Your task to perform on an android device: check storage Image 0: 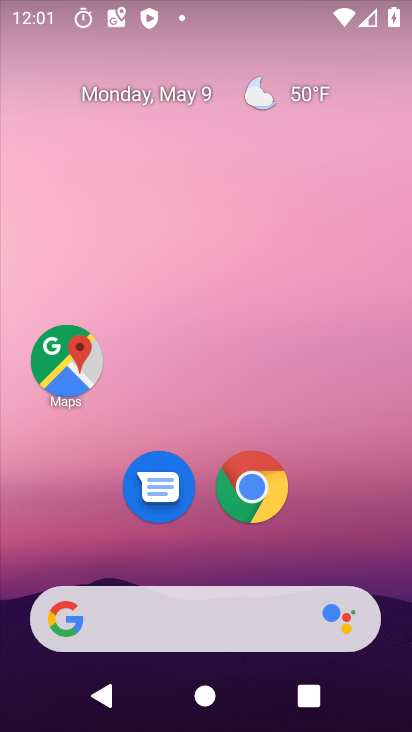
Step 0: drag from (340, 505) to (310, 58)
Your task to perform on an android device: check storage Image 1: 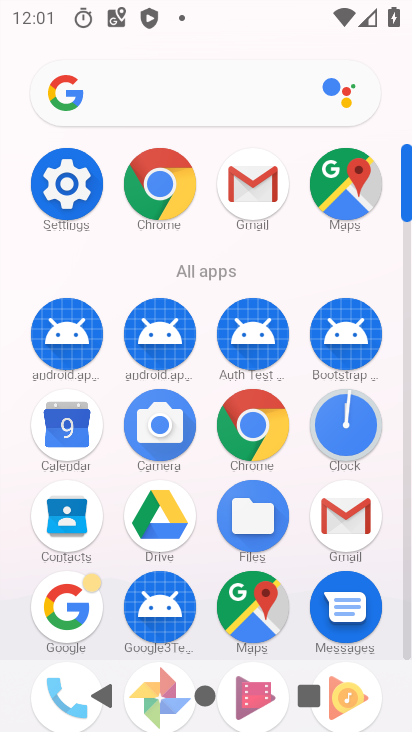
Step 1: click (59, 185)
Your task to perform on an android device: check storage Image 2: 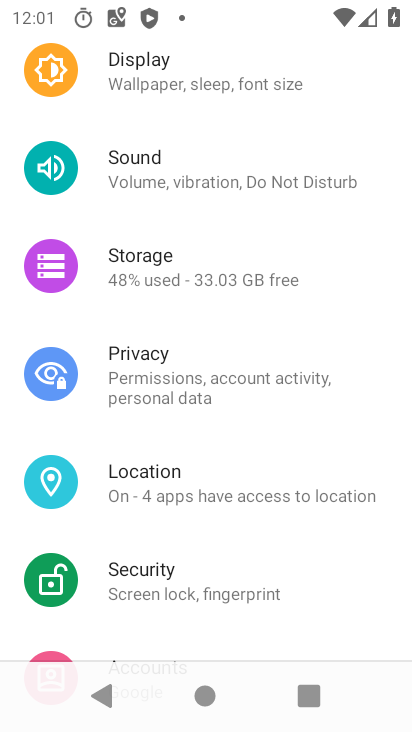
Step 2: click (196, 290)
Your task to perform on an android device: check storage Image 3: 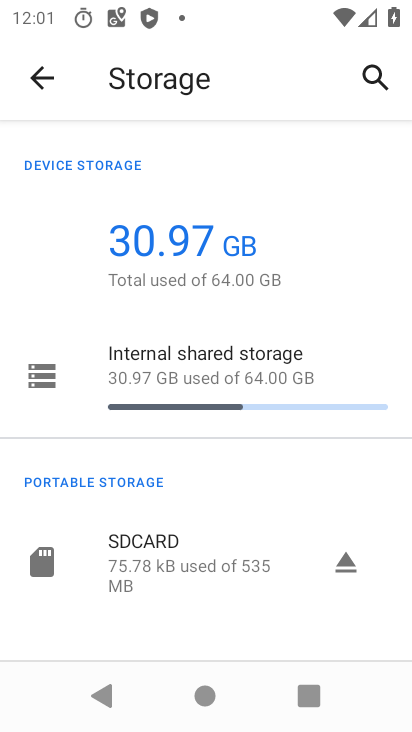
Step 3: task complete